Your task to perform on an android device: change your default location settings in chrome Image 0: 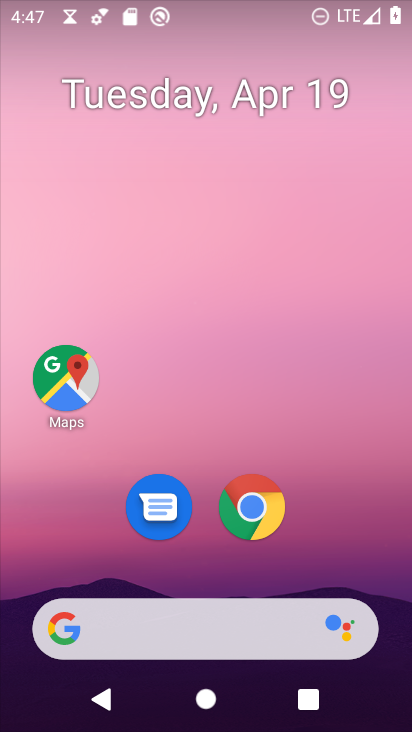
Step 0: click (261, 505)
Your task to perform on an android device: change your default location settings in chrome Image 1: 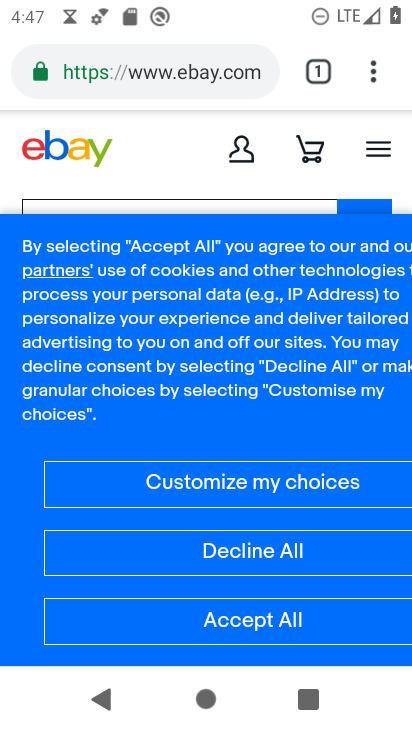
Step 1: click (362, 72)
Your task to perform on an android device: change your default location settings in chrome Image 2: 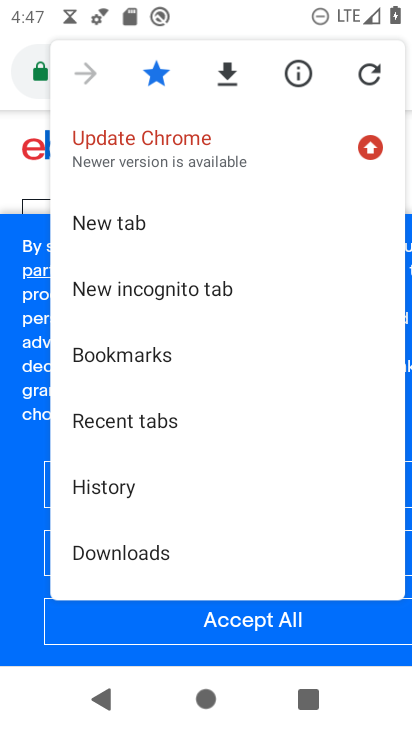
Step 2: drag from (230, 353) to (239, 249)
Your task to perform on an android device: change your default location settings in chrome Image 3: 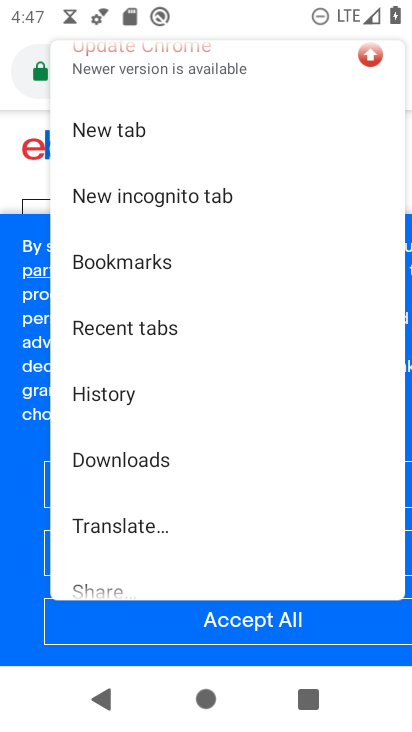
Step 3: drag from (232, 324) to (230, 262)
Your task to perform on an android device: change your default location settings in chrome Image 4: 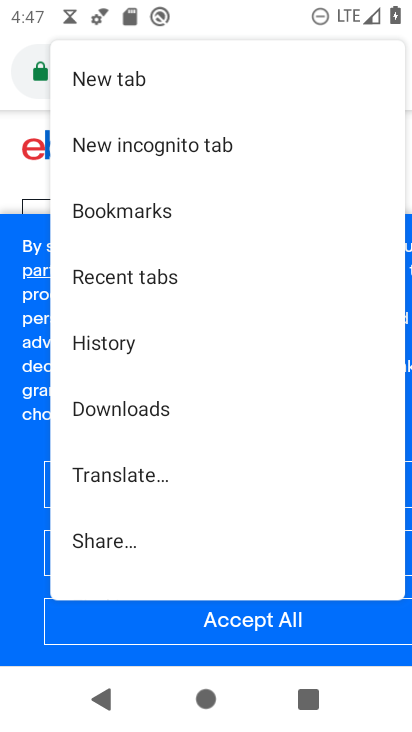
Step 4: drag from (231, 332) to (240, 258)
Your task to perform on an android device: change your default location settings in chrome Image 5: 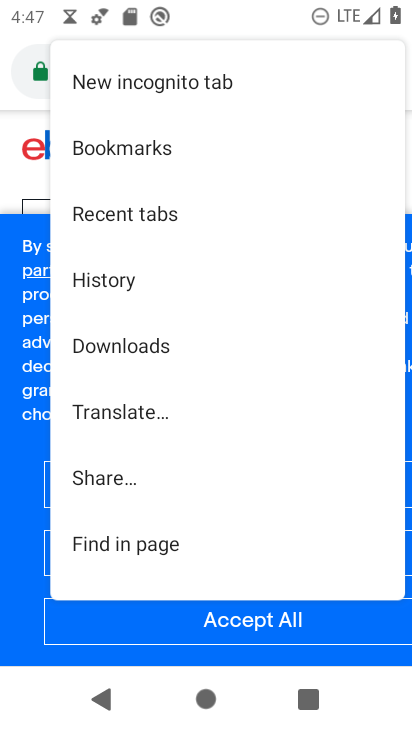
Step 5: drag from (213, 340) to (224, 259)
Your task to perform on an android device: change your default location settings in chrome Image 6: 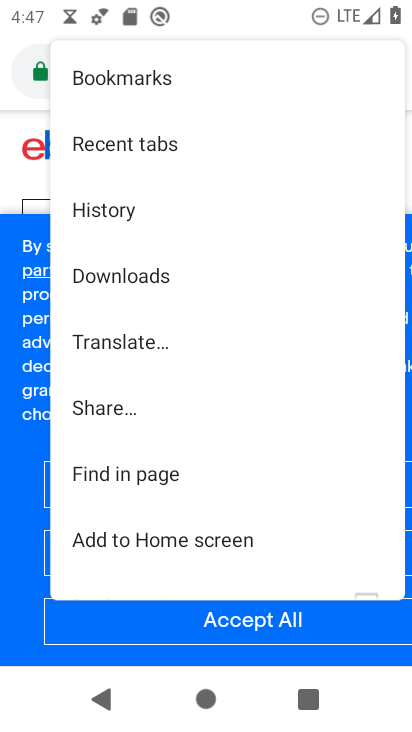
Step 6: drag from (201, 387) to (200, 318)
Your task to perform on an android device: change your default location settings in chrome Image 7: 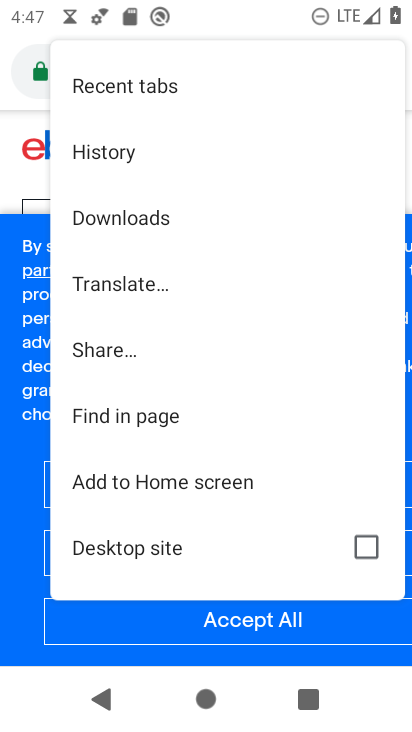
Step 7: drag from (182, 430) to (178, 355)
Your task to perform on an android device: change your default location settings in chrome Image 8: 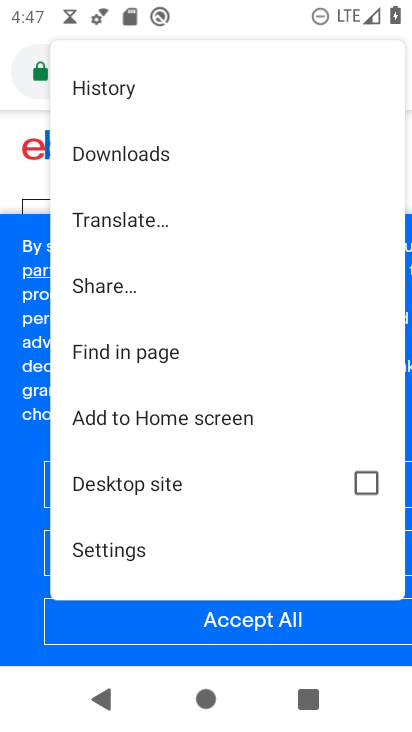
Step 8: drag from (196, 450) to (193, 364)
Your task to perform on an android device: change your default location settings in chrome Image 9: 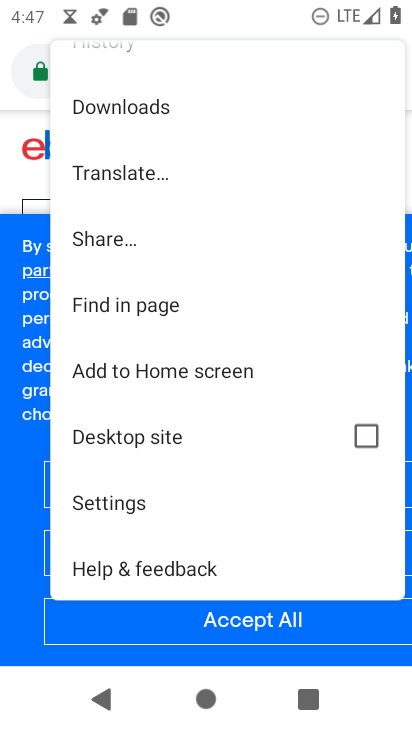
Step 9: click (159, 483)
Your task to perform on an android device: change your default location settings in chrome Image 10: 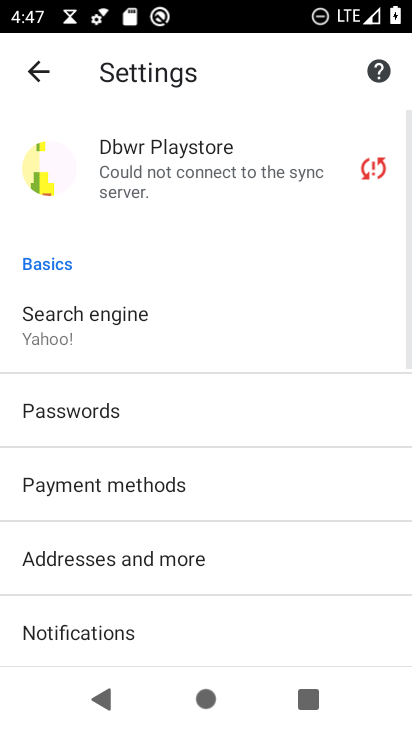
Step 10: drag from (138, 501) to (134, 460)
Your task to perform on an android device: change your default location settings in chrome Image 11: 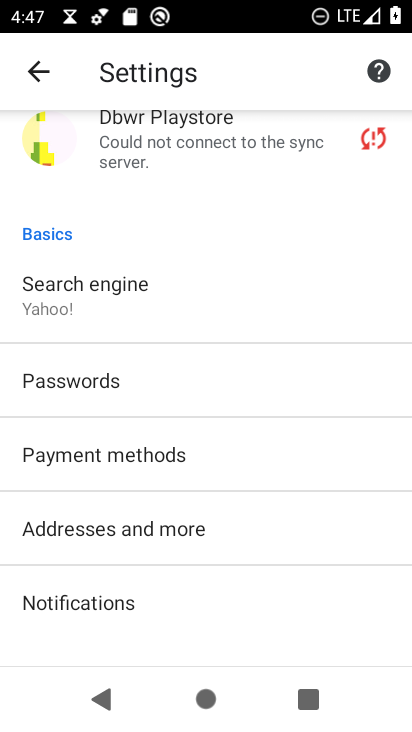
Step 11: drag from (106, 540) to (98, 484)
Your task to perform on an android device: change your default location settings in chrome Image 12: 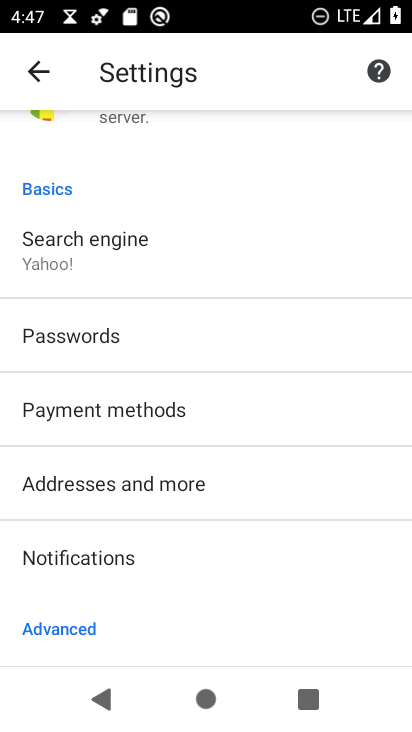
Step 12: drag from (111, 537) to (99, 484)
Your task to perform on an android device: change your default location settings in chrome Image 13: 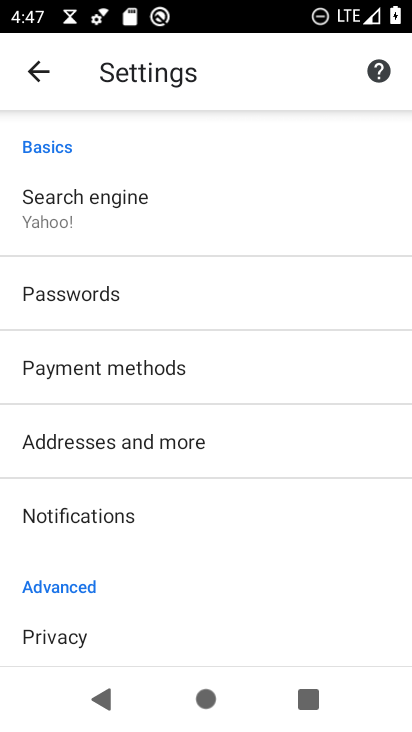
Step 13: drag from (103, 528) to (98, 478)
Your task to perform on an android device: change your default location settings in chrome Image 14: 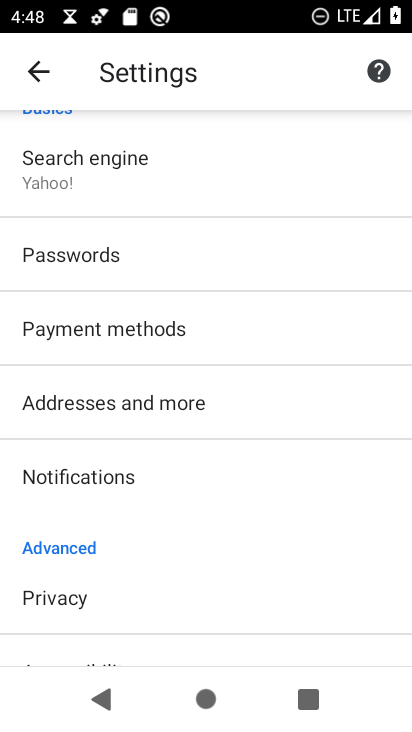
Step 14: drag from (102, 522) to (95, 477)
Your task to perform on an android device: change your default location settings in chrome Image 15: 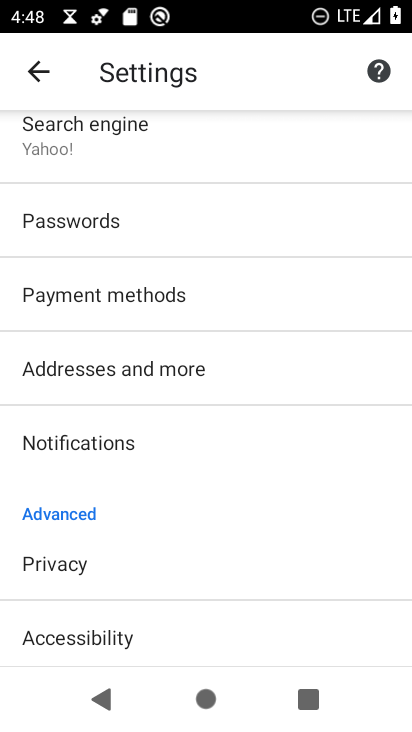
Step 15: click (101, 519)
Your task to perform on an android device: change your default location settings in chrome Image 16: 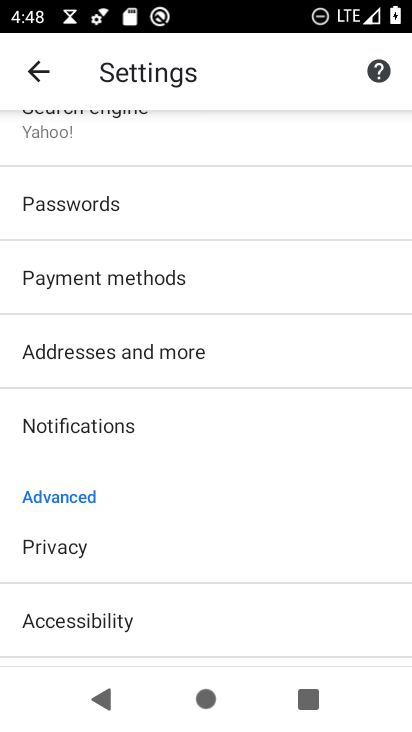
Step 16: drag from (98, 513) to (94, 469)
Your task to perform on an android device: change your default location settings in chrome Image 17: 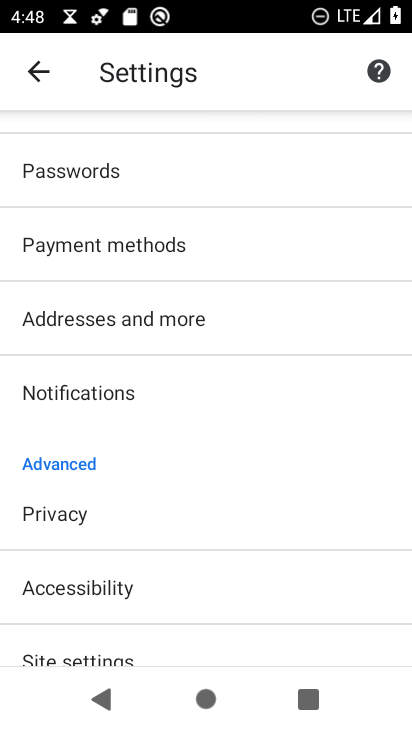
Step 17: click (81, 640)
Your task to perform on an android device: change your default location settings in chrome Image 18: 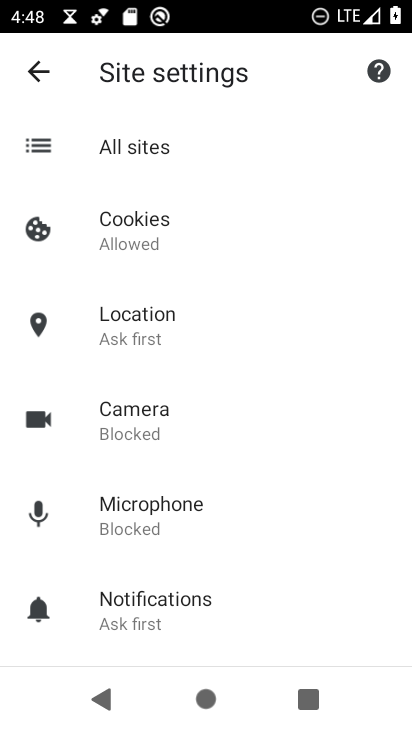
Step 18: click (161, 343)
Your task to perform on an android device: change your default location settings in chrome Image 19: 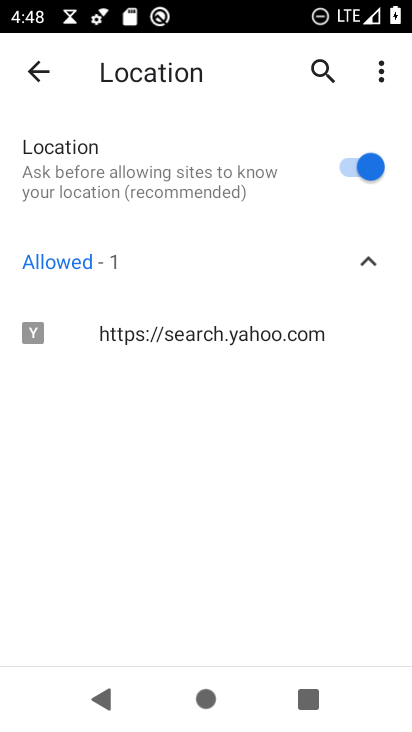
Step 19: click (348, 163)
Your task to perform on an android device: change your default location settings in chrome Image 20: 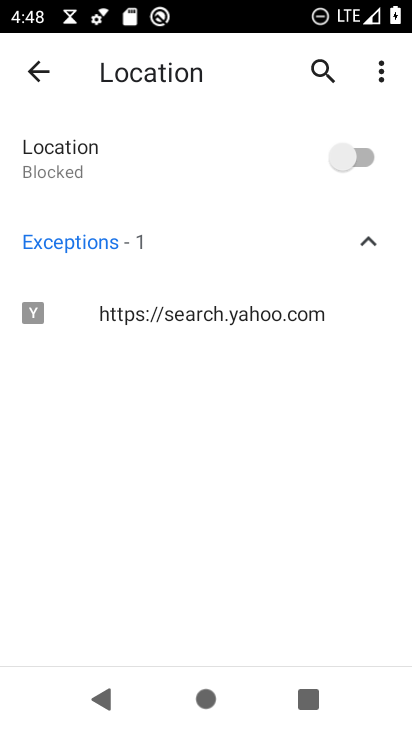
Step 20: task complete